Your task to perform on an android device: turn off airplane mode Image 0: 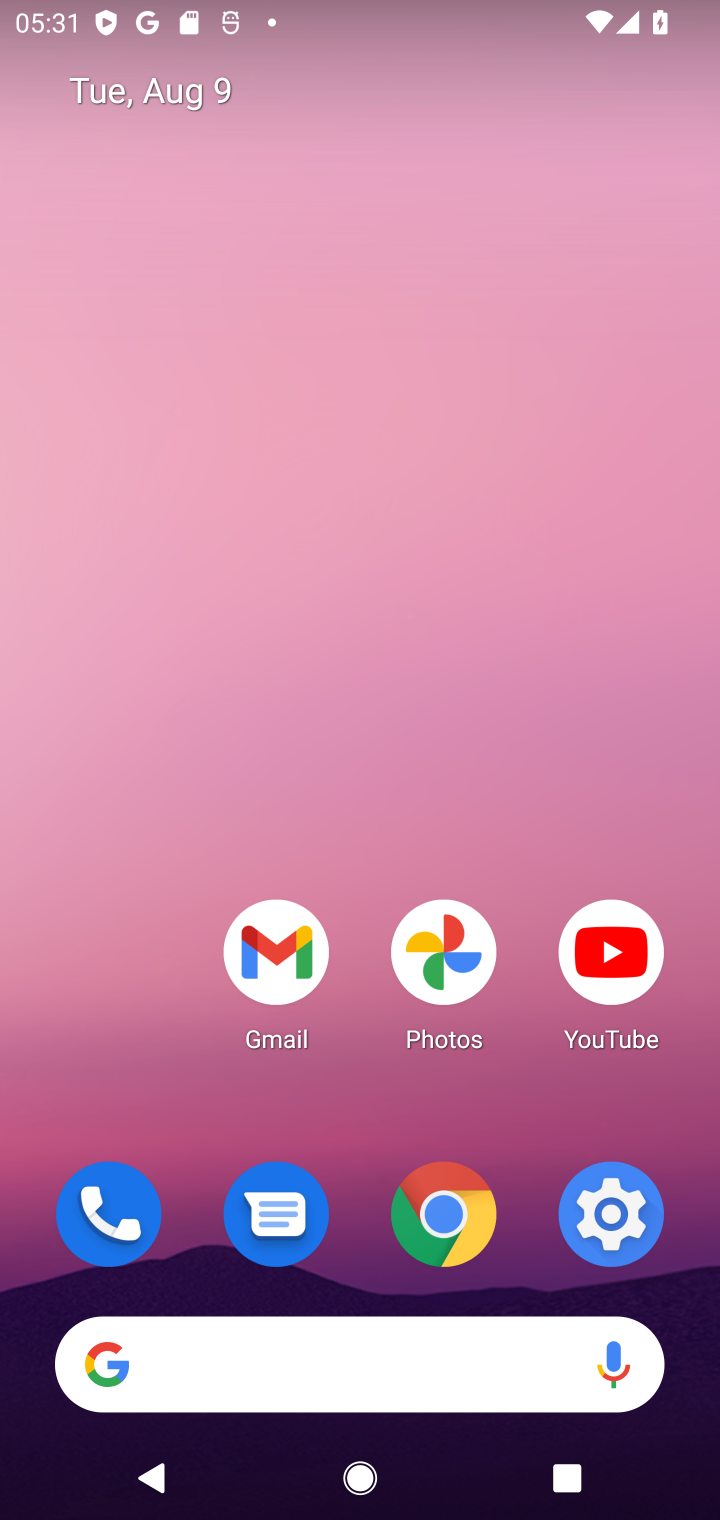
Step 0: drag from (465, 1254) to (401, 429)
Your task to perform on an android device: turn off airplane mode Image 1: 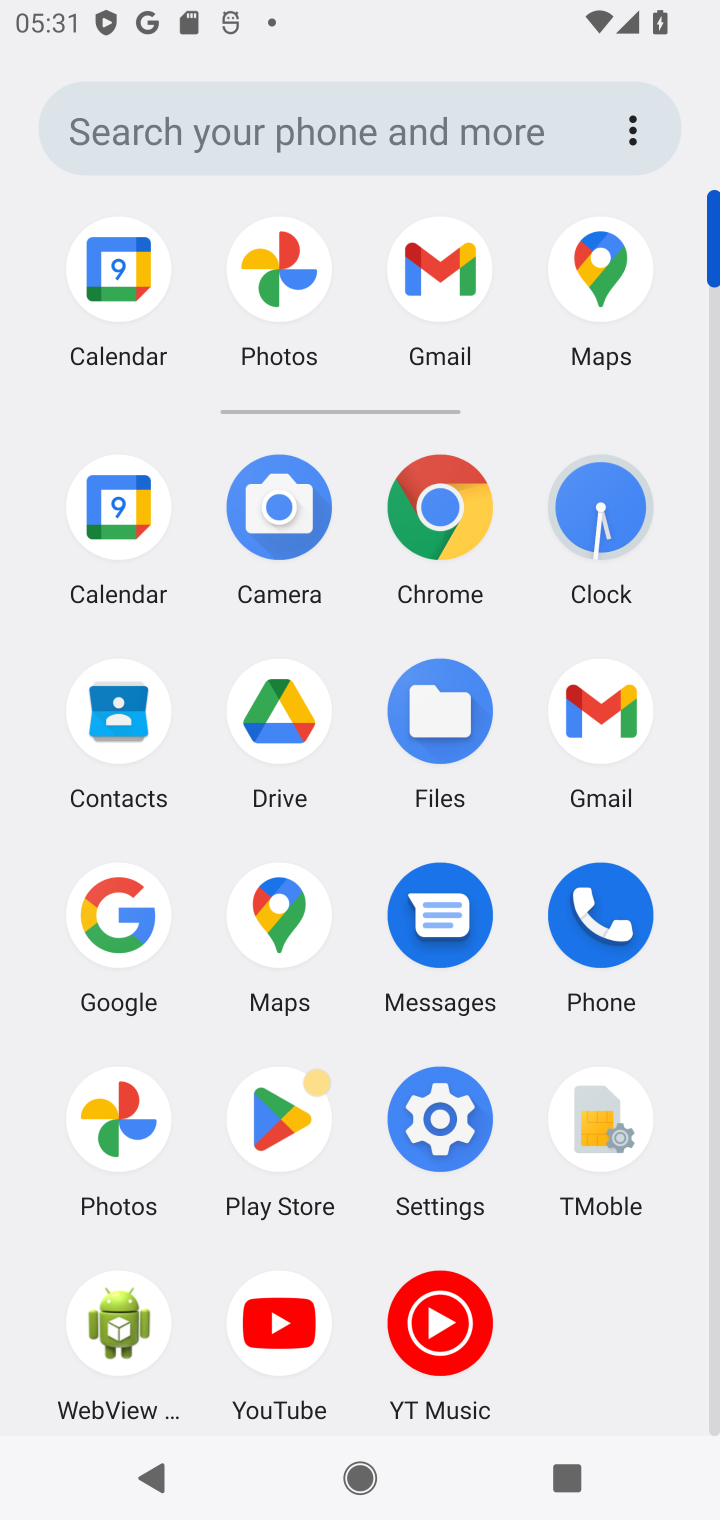
Step 1: click (428, 1136)
Your task to perform on an android device: turn off airplane mode Image 2: 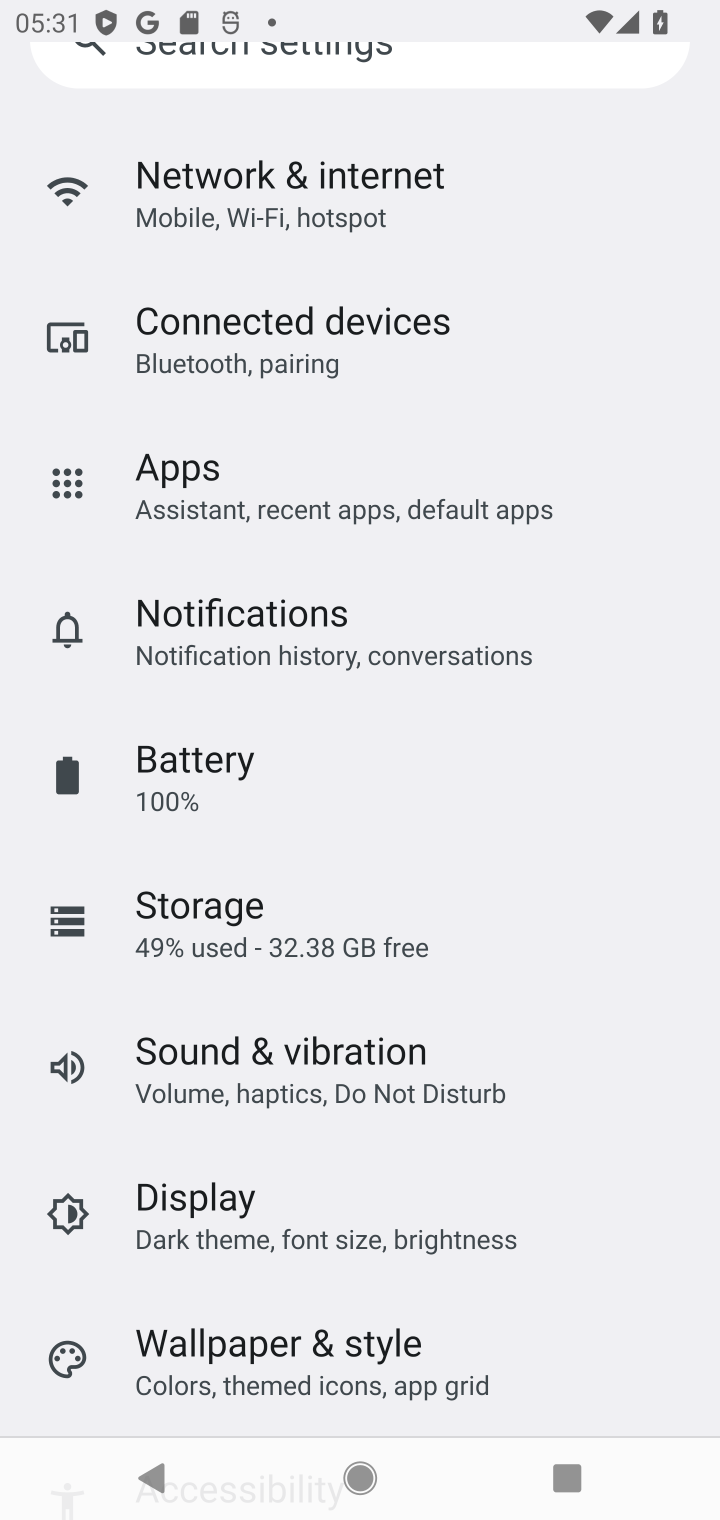
Step 2: click (324, 236)
Your task to perform on an android device: turn off airplane mode Image 3: 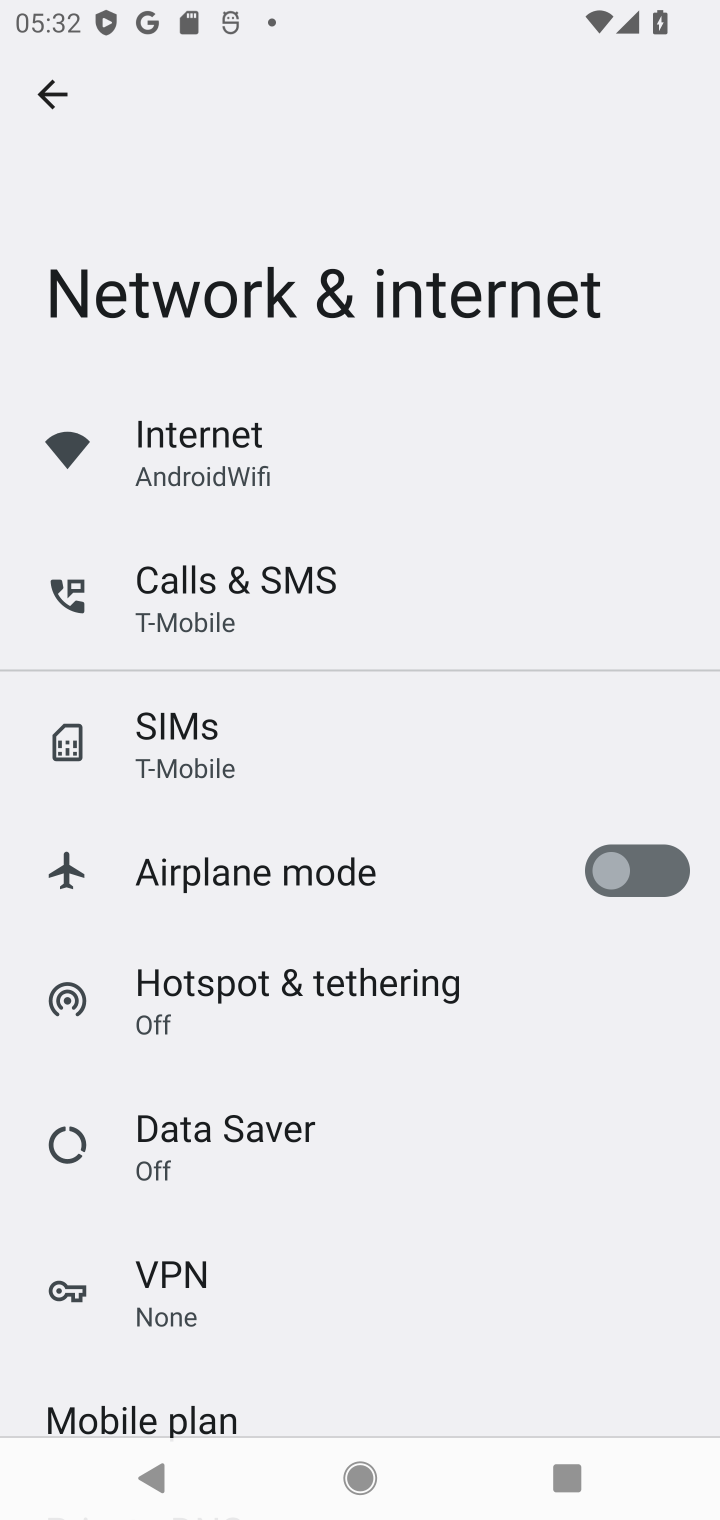
Step 3: click (627, 883)
Your task to perform on an android device: turn off airplane mode Image 4: 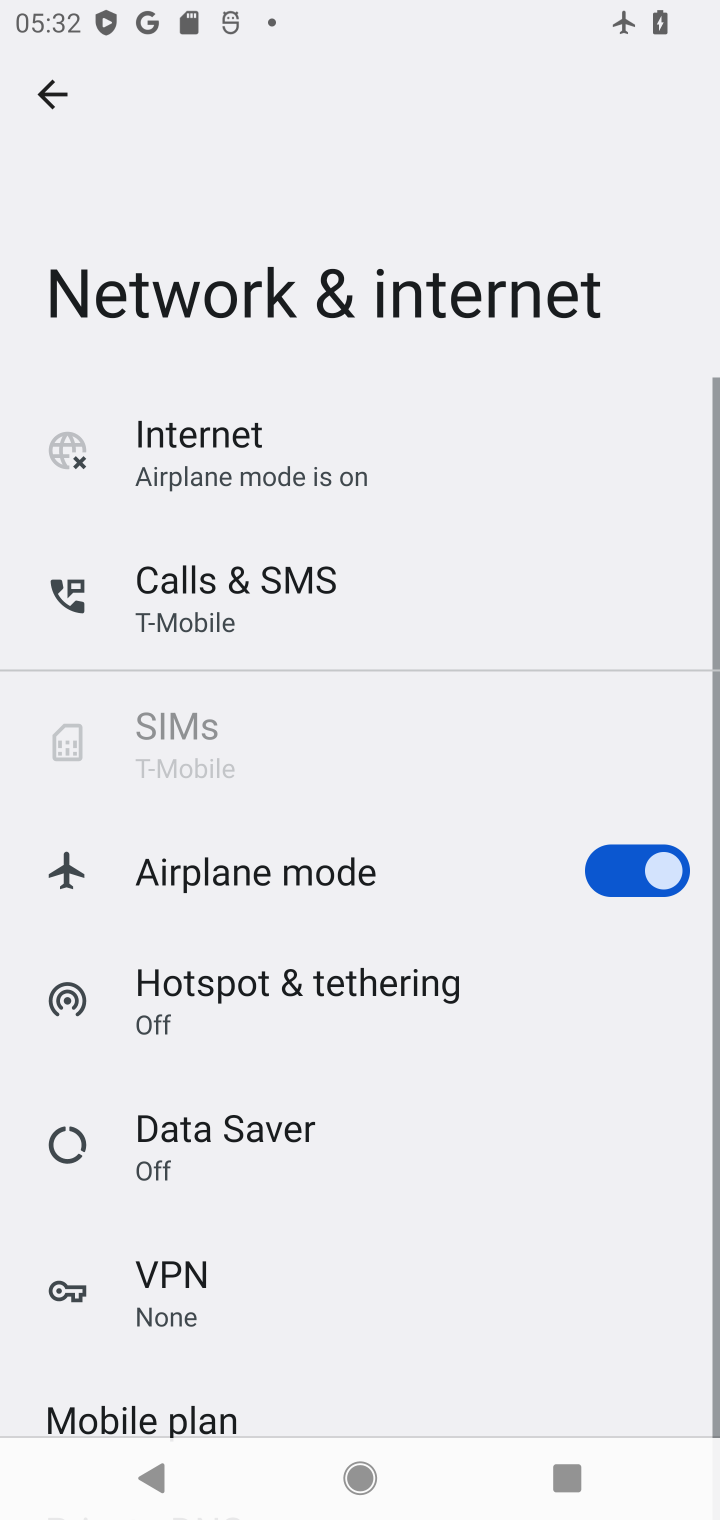
Step 4: click (627, 886)
Your task to perform on an android device: turn off airplane mode Image 5: 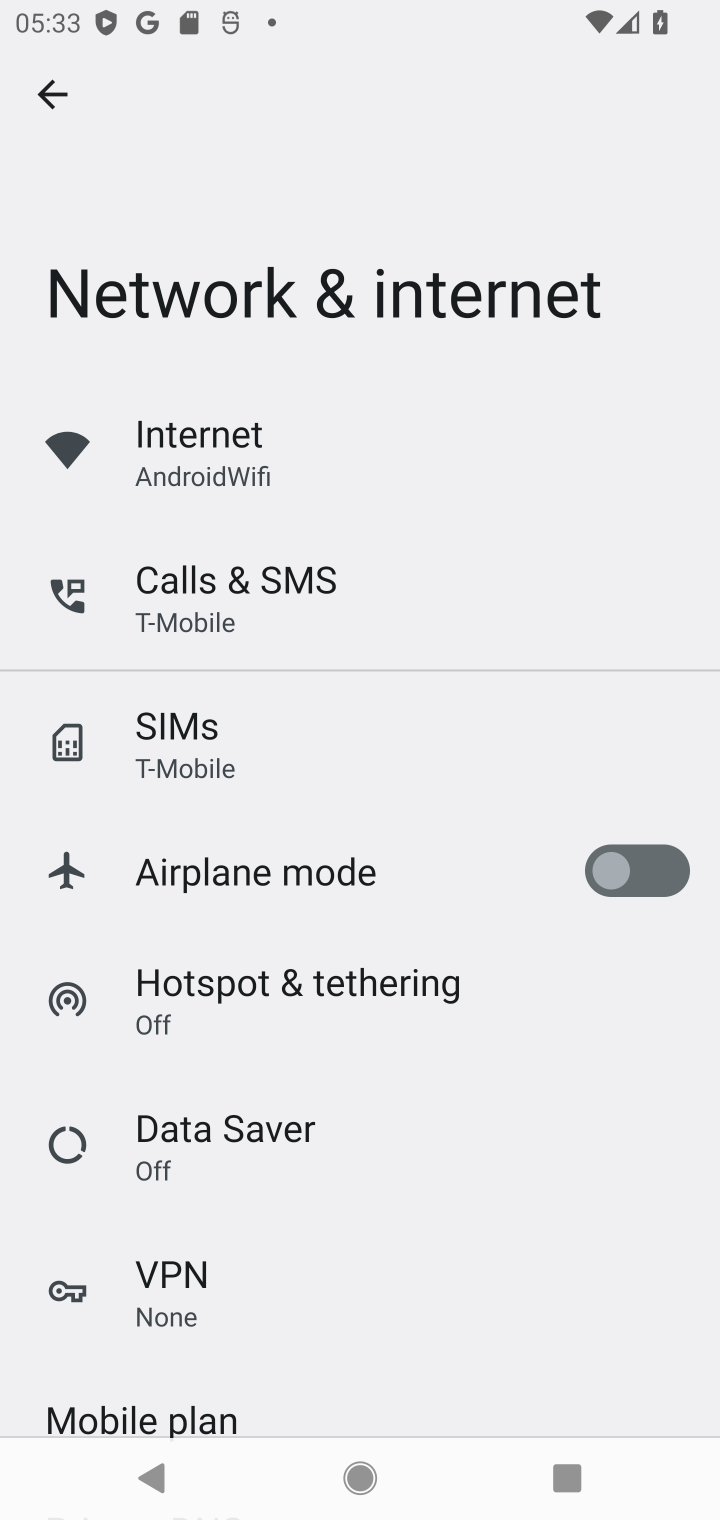
Step 5: task complete